Your task to perform on an android device: What's the weather going to be tomorrow? Image 0: 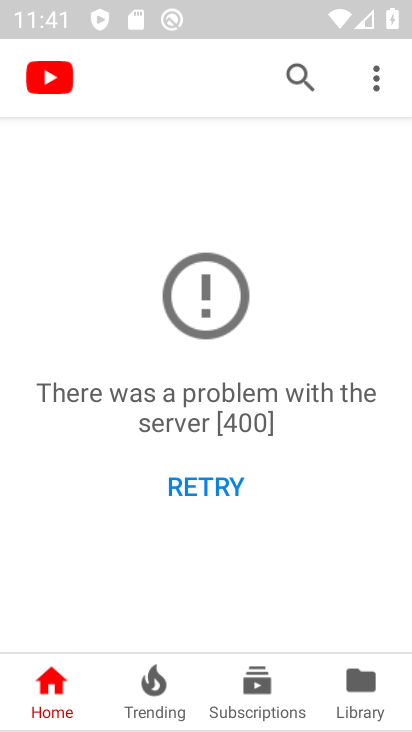
Step 0: press home button
Your task to perform on an android device: What's the weather going to be tomorrow? Image 1: 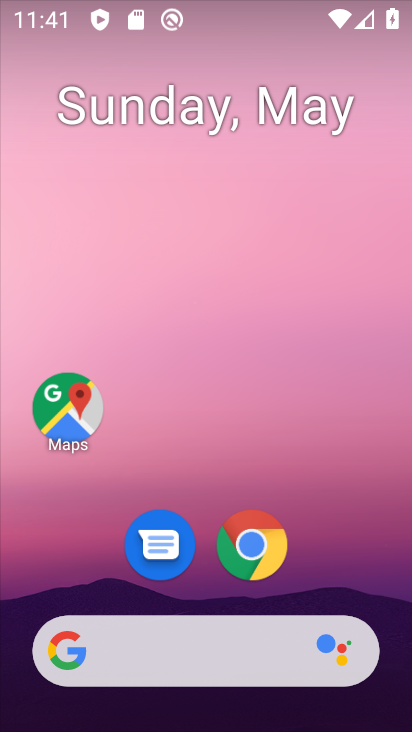
Step 1: drag from (196, 569) to (323, 39)
Your task to perform on an android device: What's the weather going to be tomorrow? Image 2: 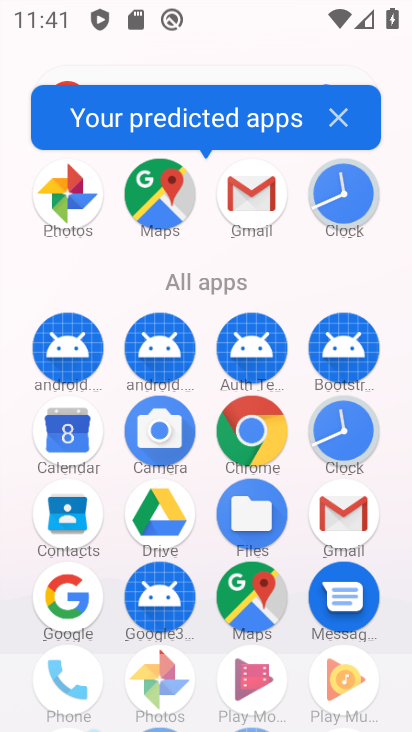
Step 2: click (52, 594)
Your task to perform on an android device: What's the weather going to be tomorrow? Image 3: 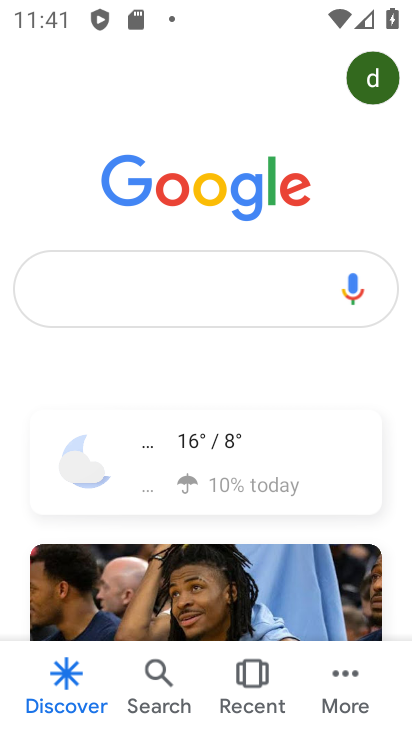
Step 3: click (174, 474)
Your task to perform on an android device: What's the weather going to be tomorrow? Image 4: 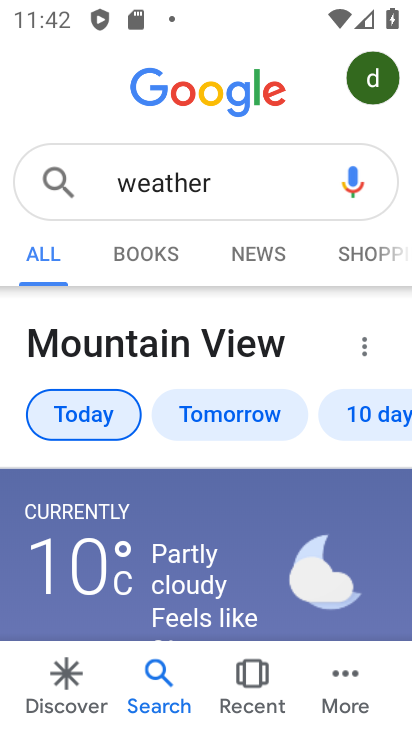
Step 4: click (230, 406)
Your task to perform on an android device: What's the weather going to be tomorrow? Image 5: 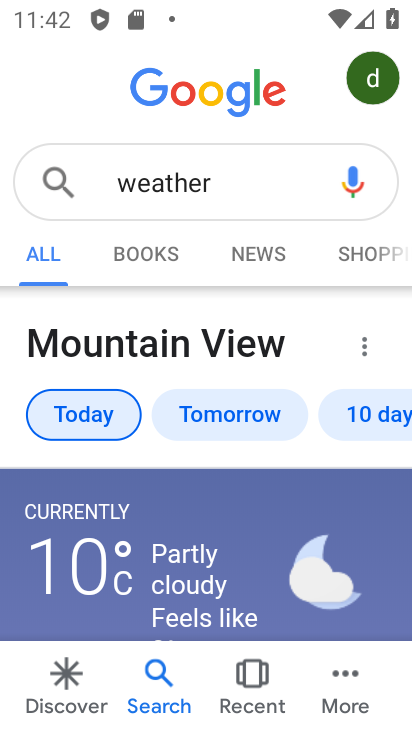
Step 5: click (230, 409)
Your task to perform on an android device: What's the weather going to be tomorrow? Image 6: 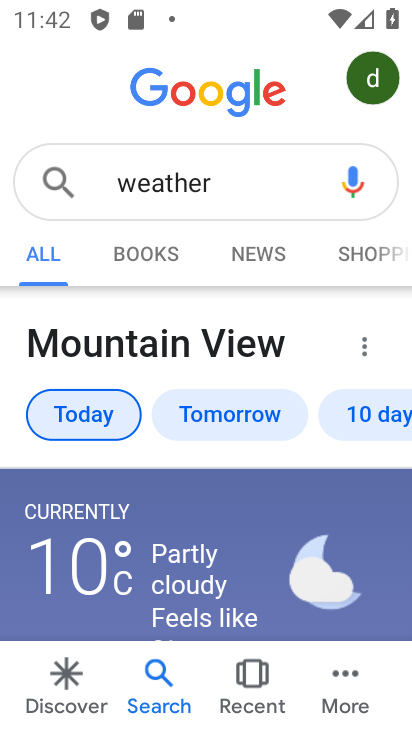
Step 6: click (230, 409)
Your task to perform on an android device: What's the weather going to be tomorrow? Image 7: 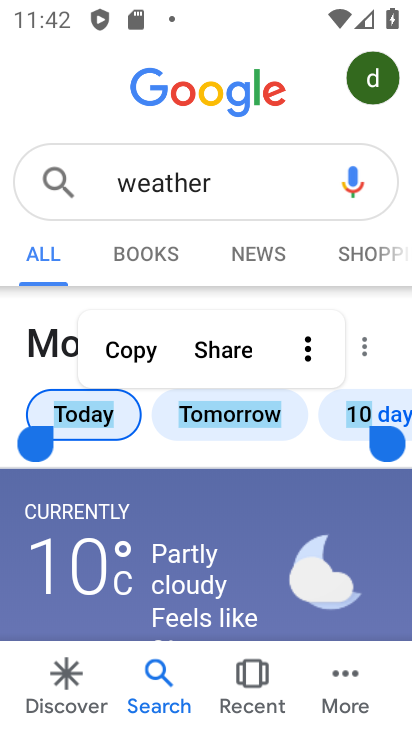
Step 7: click (235, 407)
Your task to perform on an android device: What's the weather going to be tomorrow? Image 8: 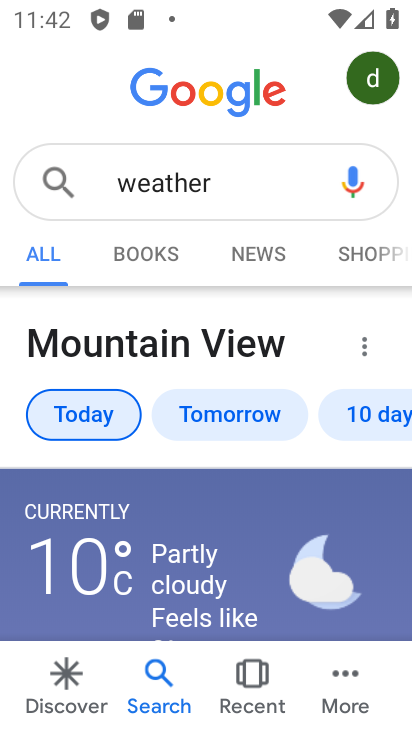
Step 8: click (235, 407)
Your task to perform on an android device: What's the weather going to be tomorrow? Image 9: 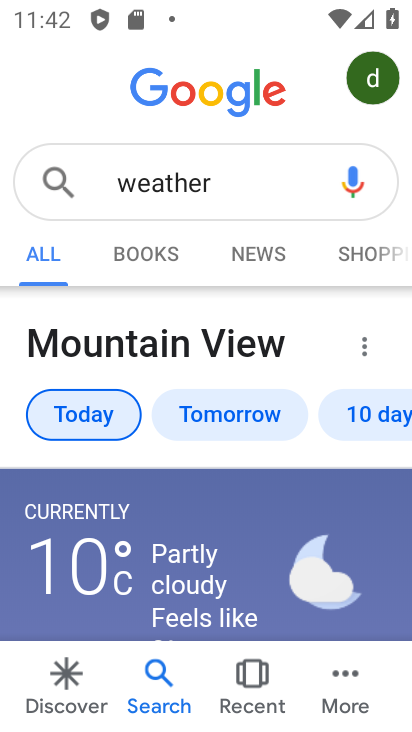
Step 9: click (231, 421)
Your task to perform on an android device: What's the weather going to be tomorrow? Image 10: 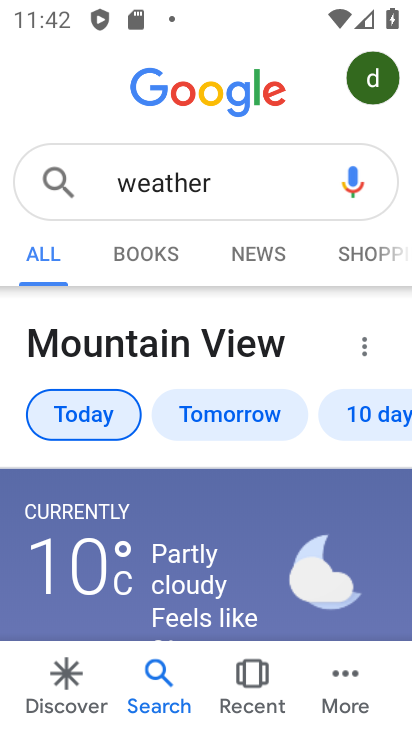
Step 10: click (223, 427)
Your task to perform on an android device: What's the weather going to be tomorrow? Image 11: 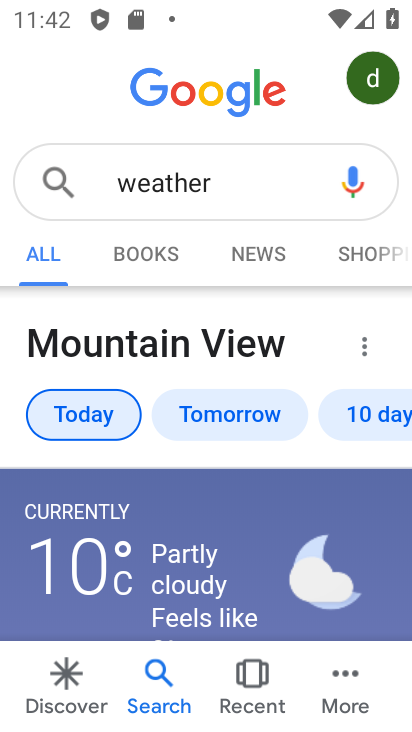
Step 11: task complete